Your task to perform on an android device: manage bookmarks in the chrome app Image 0: 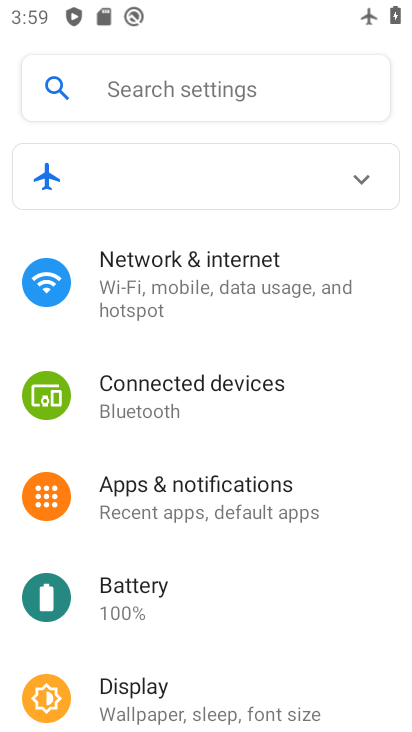
Step 0: press home button
Your task to perform on an android device: manage bookmarks in the chrome app Image 1: 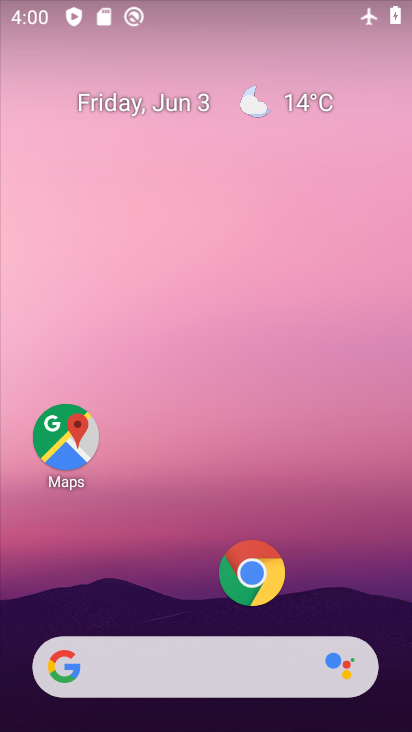
Step 1: drag from (176, 605) to (156, 213)
Your task to perform on an android device: manage bookmarks in the chrome app Image 2: 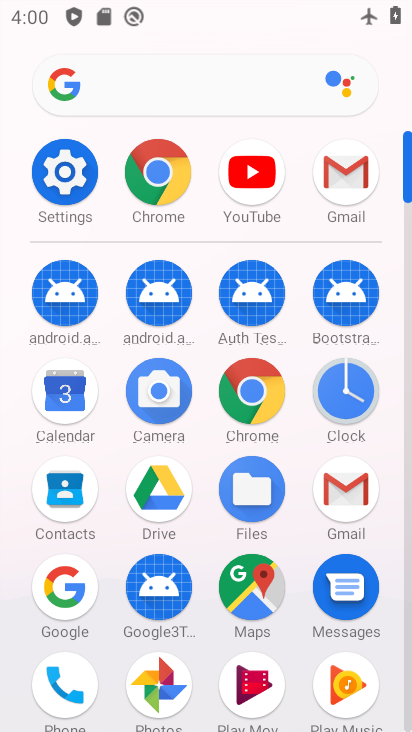
Step 2: click (248, 386)
Your task to perform on an android device: manage bookmarks in the chrome app Image 3: 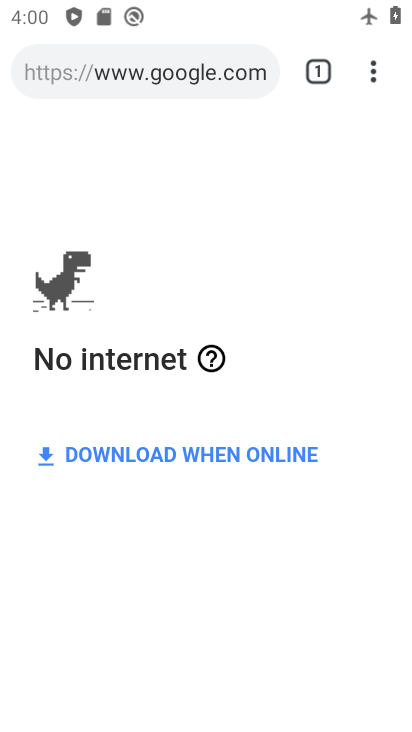
Step 3: click (365, 71)
Your task to perform on an android device: manage bookmarks in the chrome app Image 4: 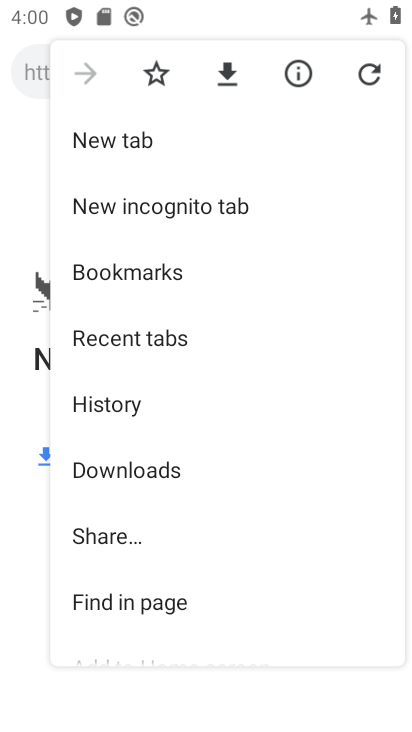
Step 4: click (119, 280)
Your task to perform on an android device: manage bookmarks in the chrome app Image 5: 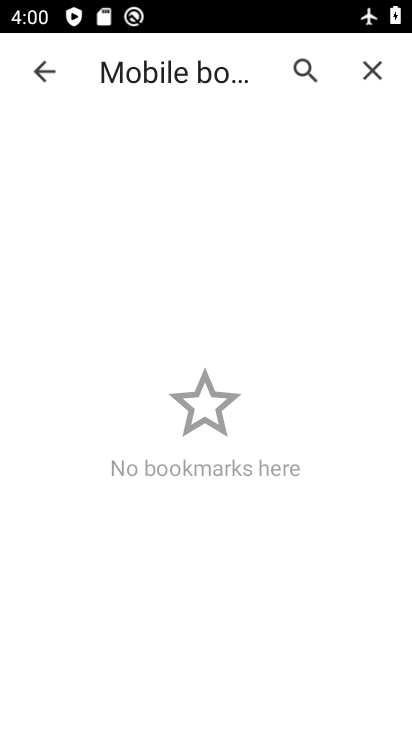
Step 5: task complete